Your task to perform on an android device: Open settings Image 0: 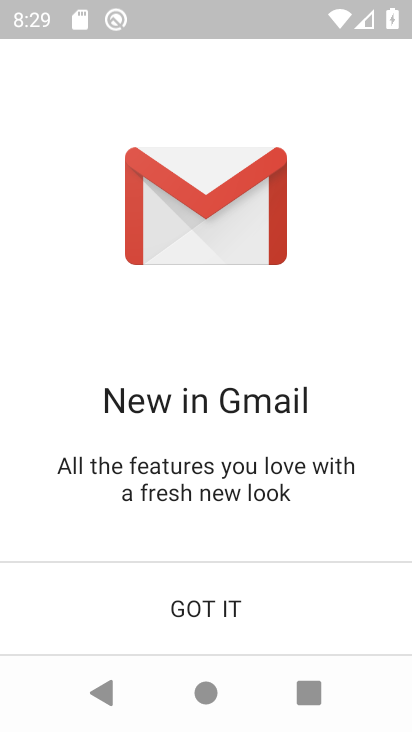
Step 0: press home button
Your task to perform on an android device: Open settings Image 1: 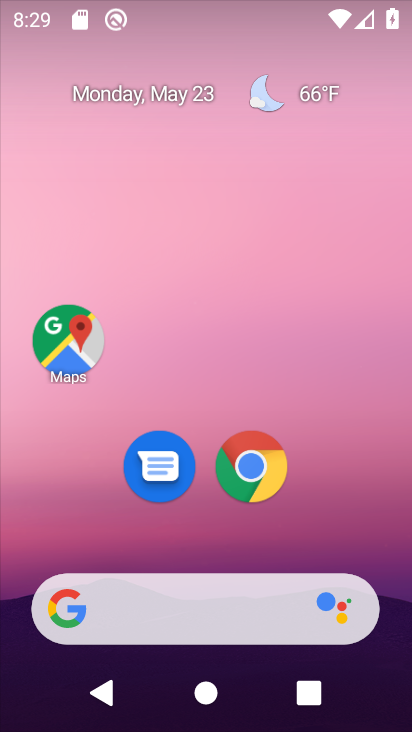
Step 1: drag from (193, 433) to (191, 229)
Your task to perform on an android device: Open settings Image 2: 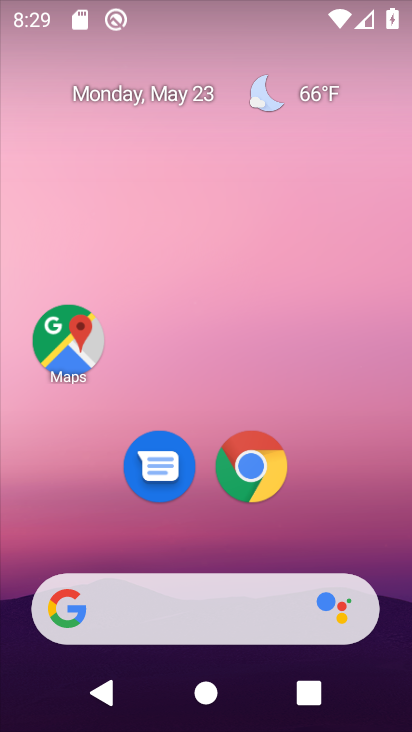
Step 2: drag from (200, 554) to (239, 128)
Your task to perform on an android device: Open settings Image 3: 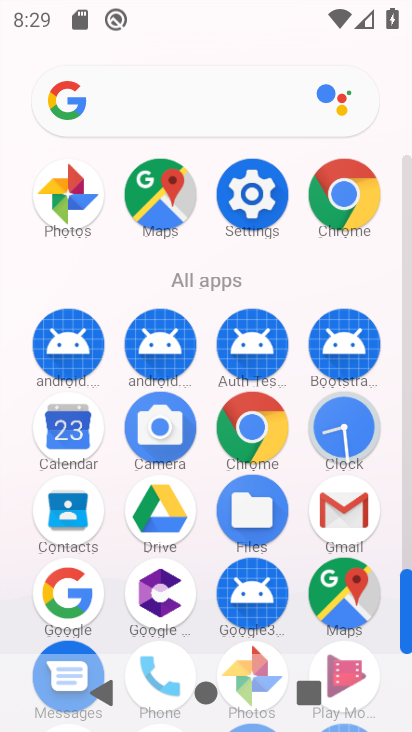
Step 3: click (257, 200)
Your task to perform on an android device: Open settings Image 4: 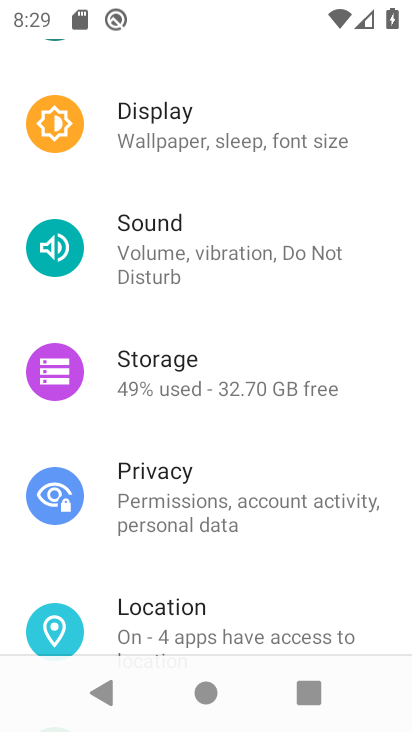
Step 4: task complete